Your task to perform on an android device: Open the web browser Image 0: 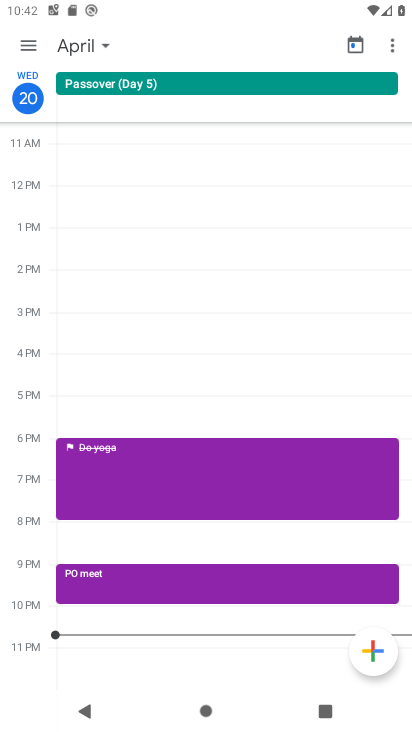
Step 0: press home button
Your task to perform on an android device: Open the web browser Image 1: 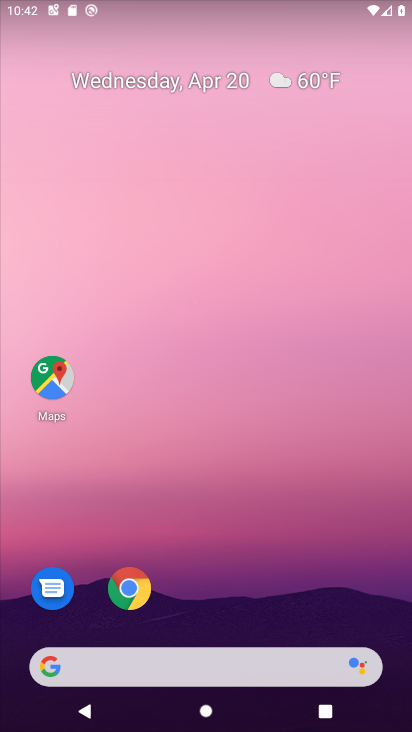
Step 1: click (128, 591)
Your task to perform on an android device: Open the web browser Image 2: 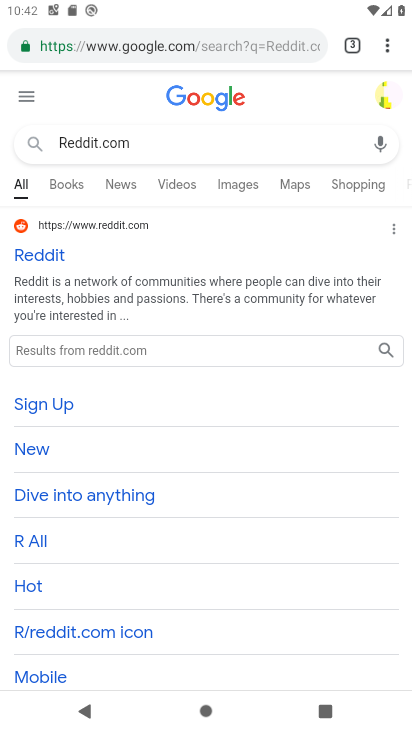
Step 2: task complete